Your task to perform on an android device: add a contact in the contacts app Image 0: 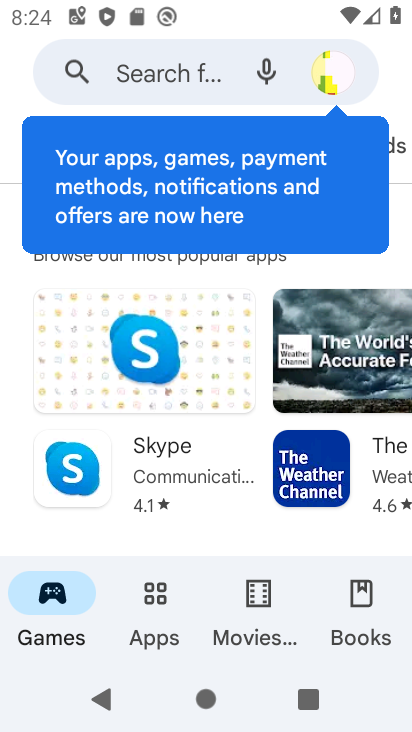
Step 0: press home button
Your task to perform on an android device: add a contact in the contacts app Image 1: 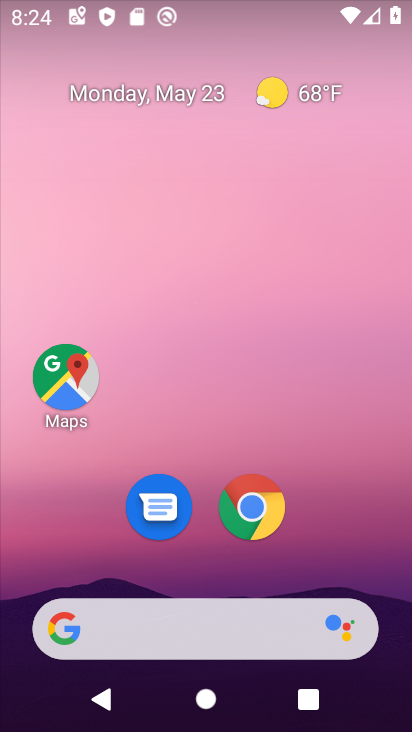
Step 1: drag from (179, 467) to (226, 20)
Your task to perform on an android device: add a contact in the contacts app Image 2: 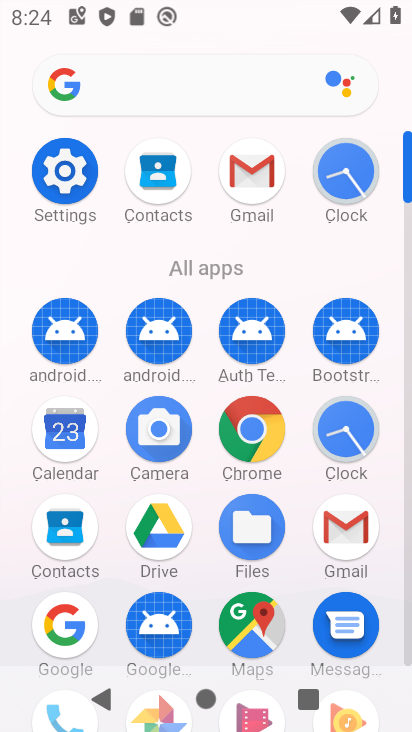
Step 2: click (61, 512)
Your task to perform on an android device: add a contact in the contacts app Image 3: 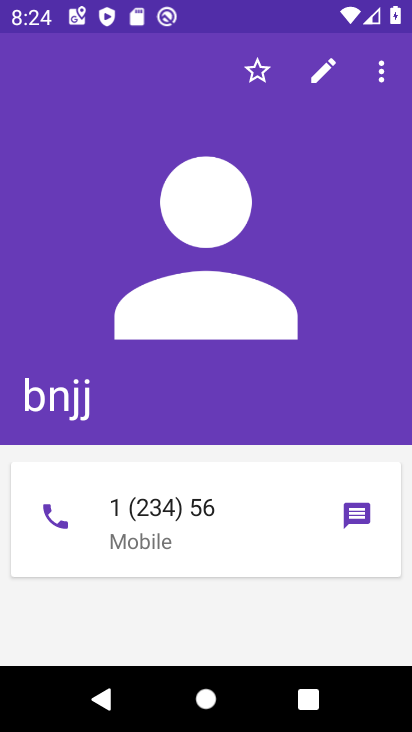
Step 3: press back button
Your task to perform on an android device: add a contact in the contacts app Image 4: 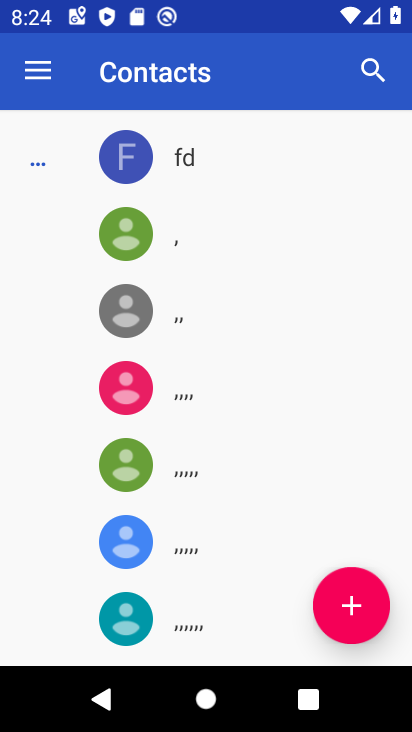
Step 4: click (349, 616)
Your task to perform on an android device: add a contact in the contacts app Image 5: 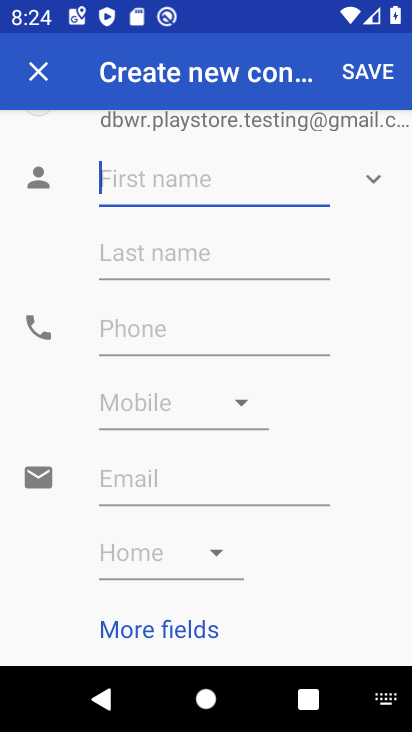
Step 5: type "njnjnj"
Your task to perform on an android device: add a contact in the contacts app Image 6: 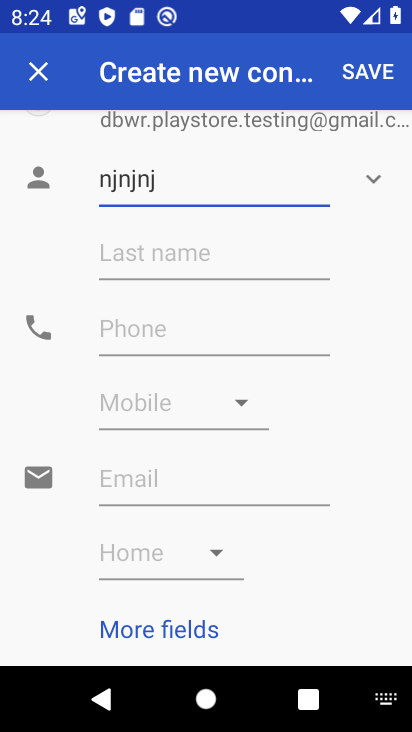
Step 6: click (169, 335)
Your task to perform on an android device: add a contact in the contacts app Image 7: 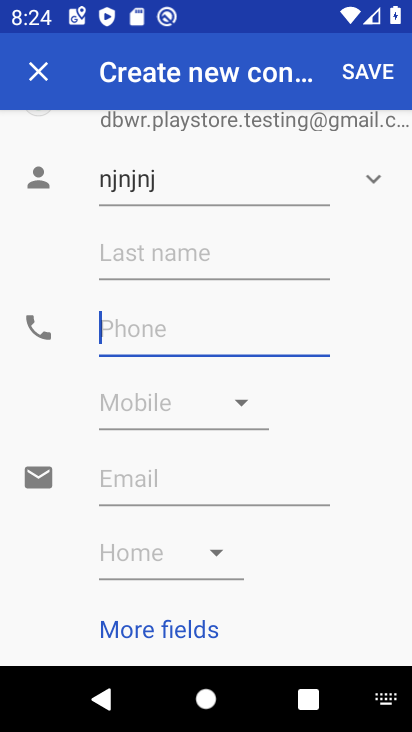
Step 7: type "1234"
Your task to perform on an android device: add a contact in the contacts app Image 8: 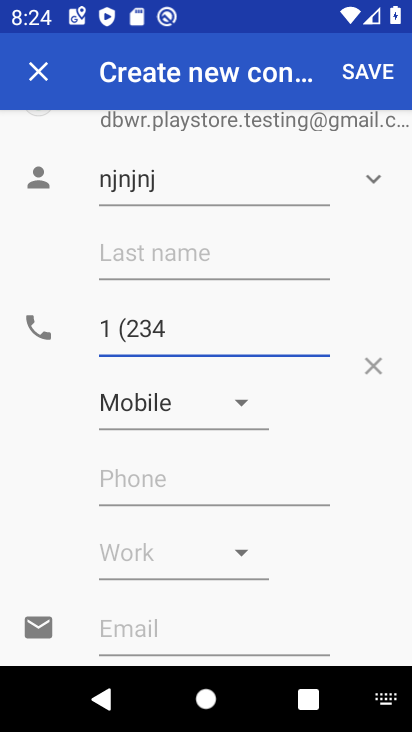
Step 8: click (364, 76)
Your task to perform on an android device: add a contact in the contacts app Image 9: 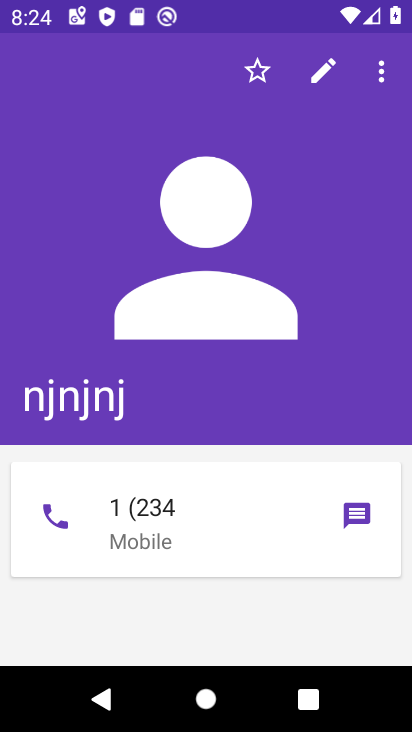
Step 9: task complete